Your task to perform on an android device: set the stopwatch Image 0: 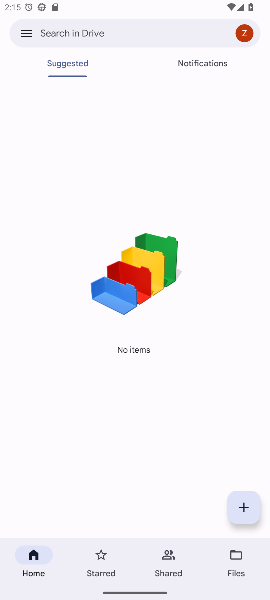
Step 0: press home button
Your task to perform on an android device: set the stopwatch Image 1: 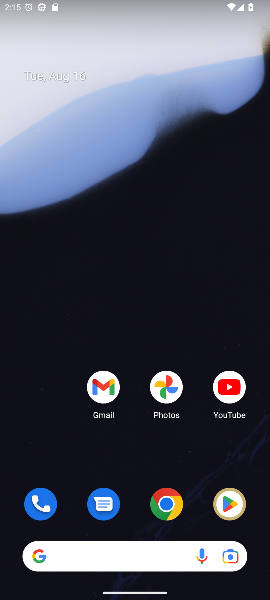
Step 1: drag from (134, 505) to (131, 73)
Your task to perform on an android device: set the stopwatch Image 2: 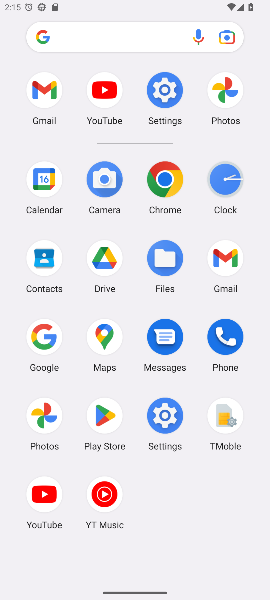
Step 2: click (224, 185)
Your task to perform on an android device: set the stopwatch Image 3: 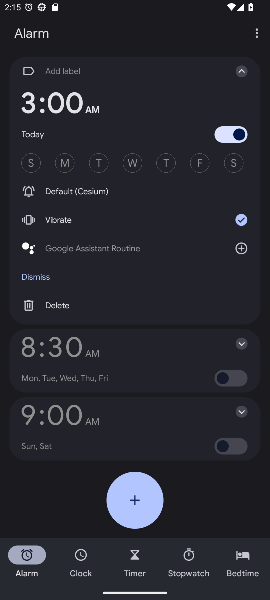
Step 3: click (187, 558)
Your task to perform on an android device: set the stopwatch Image 4: 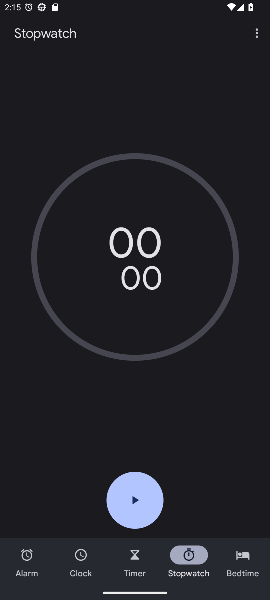
Step 4: task complete